Your task to perform on an android device: Open display settings Image 0: 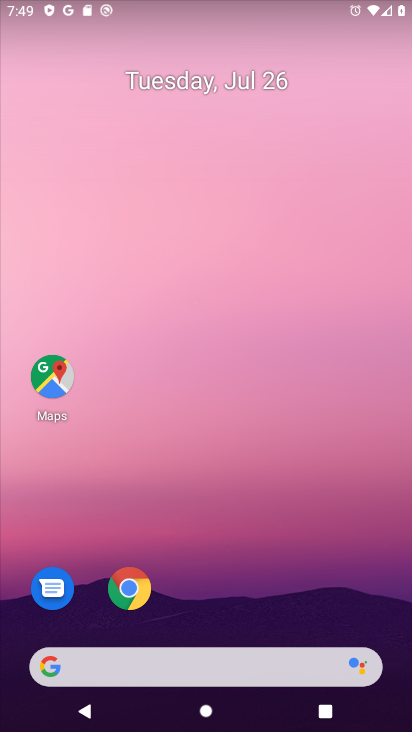
Step 0: drag from (219, 640) to (235, 119)
Your task to perform on an android device: Open display settings Image 1: 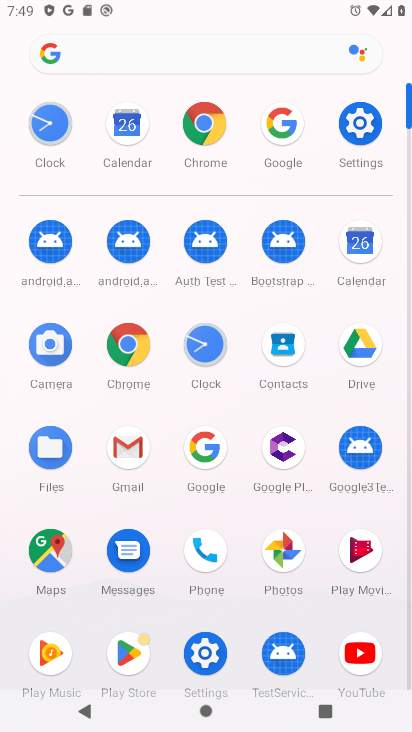
Step 1: click (361, 131)
Your task to perform on an android device: Open display settings Image 2: 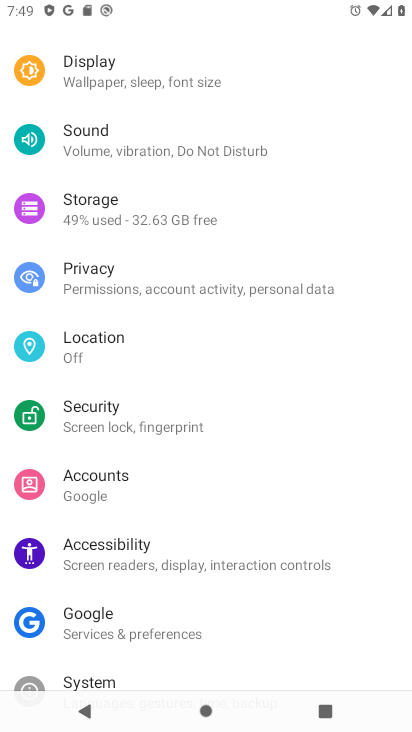
Step 2: click (146, 80)
Your task to perform on an android device: Open display settings Image 3: 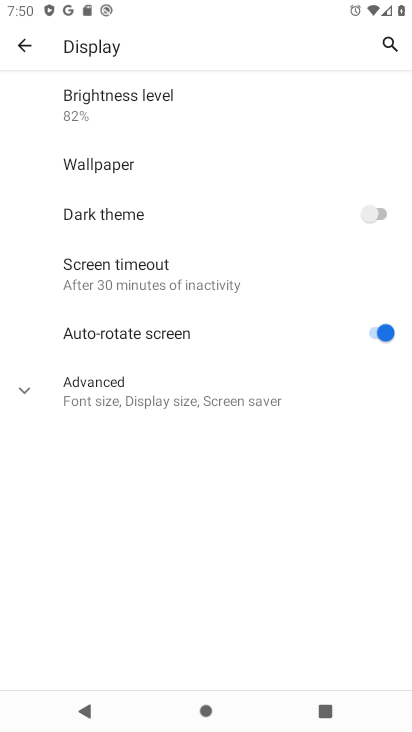
Step 3: click (167, 402)
Your task to perform on an android device: Open display settings Image 4: 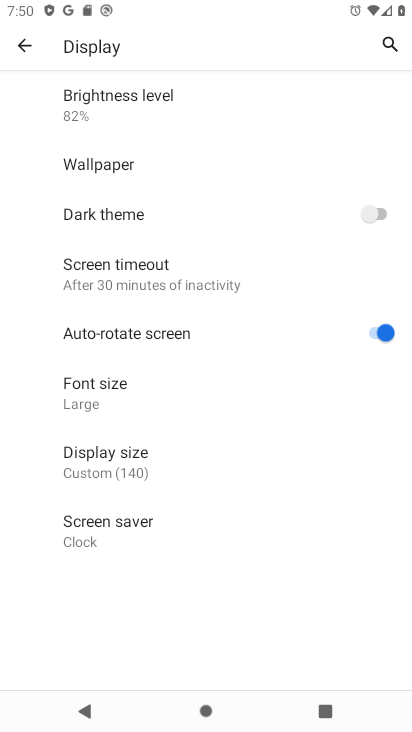
Step 4: task complete